Your task to perform on an android device: Open Wikipedia Image 0: 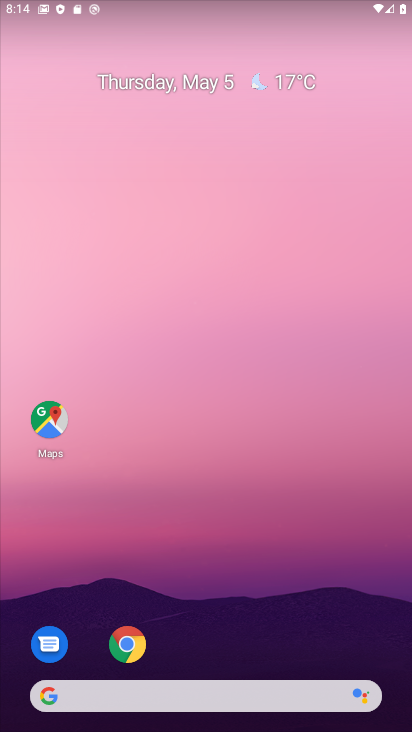
Step 0: drag from (168, 513) to (193, 87)
Your task to perform on an android device: Open Wikipedia Image 1: 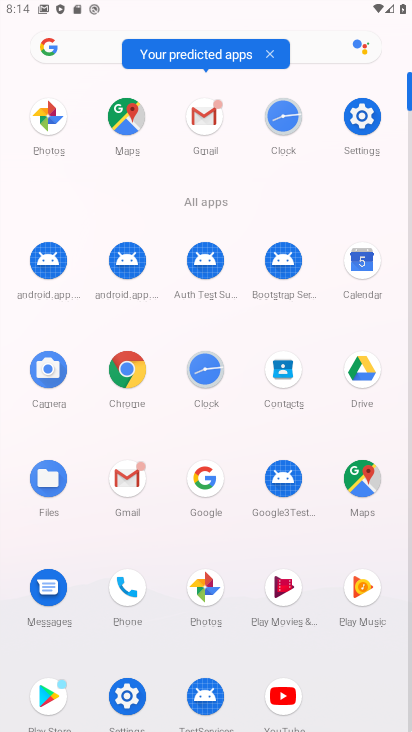
Step 1: click (120, 373)
Your task to perform on an android device: Open Wikipedia Image 2: 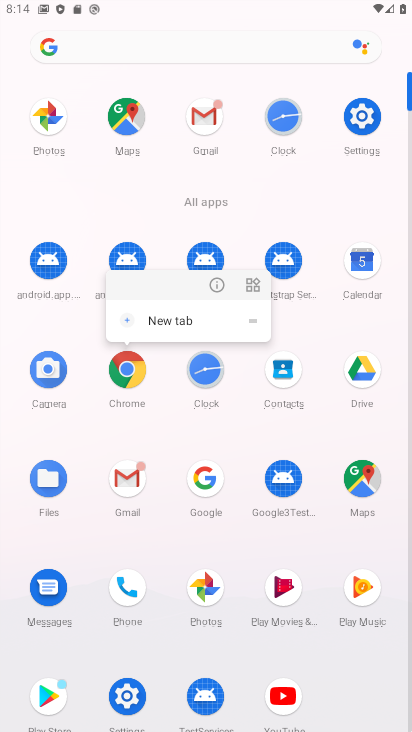
Step 2: click (215, 292)
Your task to perform on an android device: Open Wikipedia Image 3: 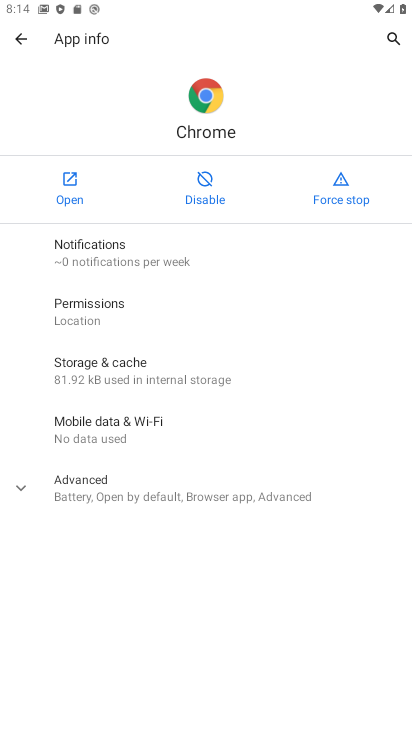
Step 3: click (73, 192)
Your task to perform on an android device: Open Wikipedia Image 4: 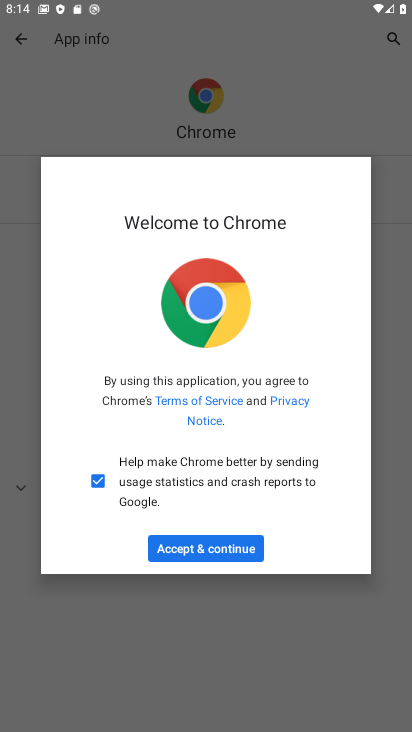
Step 4: click (197, 552)
Your task to perform on an android device: Open Wikipedia Image 5: 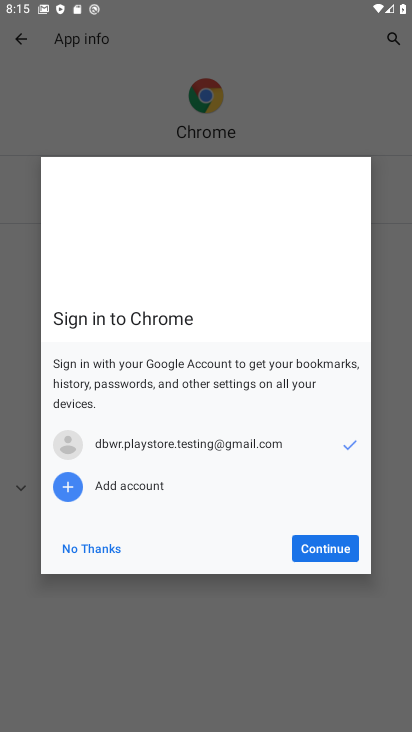
Step 5: click (308, 548)
Your task to perform on an android device: Open Wikipedia Image 6: 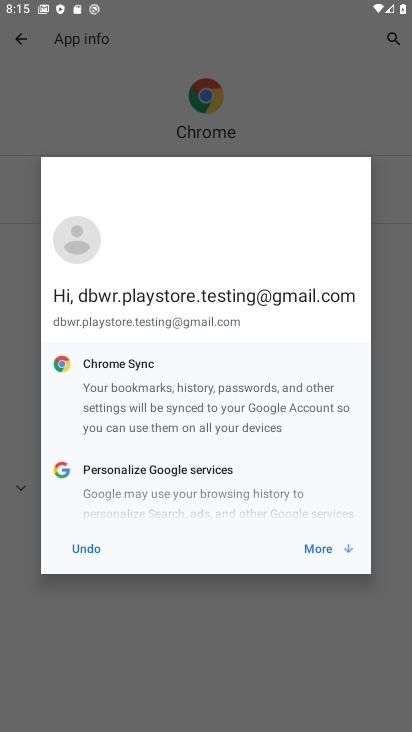
Step 6: click (314, 546)
Your task to perform on an android device: Open Wikipedia Image 7: 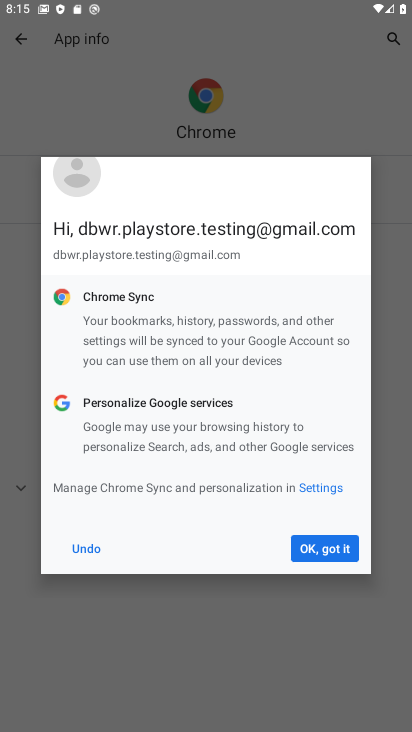
Step 7: click (322, 546)
Your task to perform on an android device: Open Wikipedia Image 8: 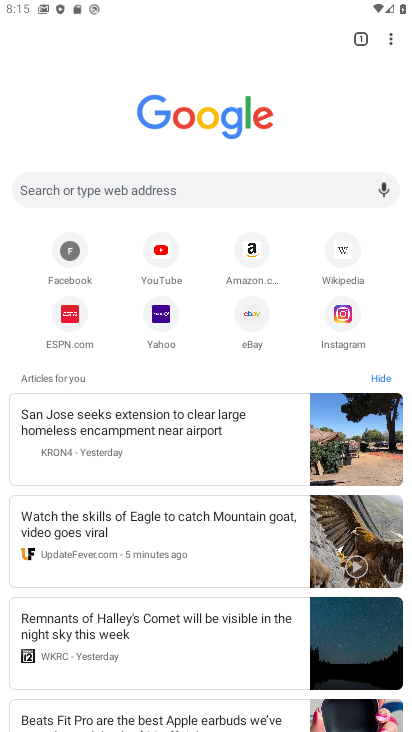
Step 8: click (340, 259)
Your task to perform on an android device: Open Wikipedia Image 9: 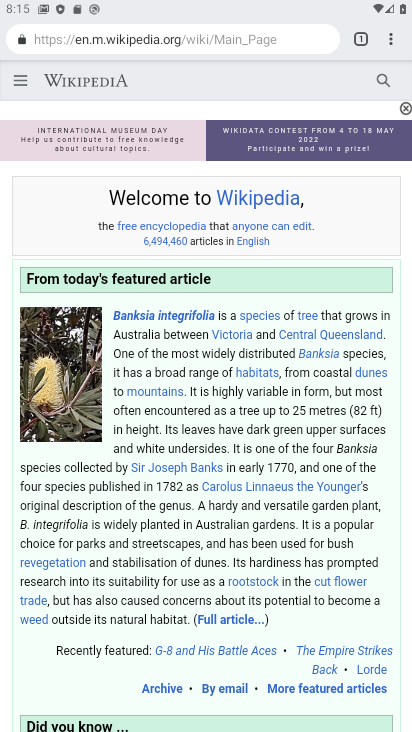
Step 9: task complete